Your task to perform on an android device: star an email in the gmail app Image 0: 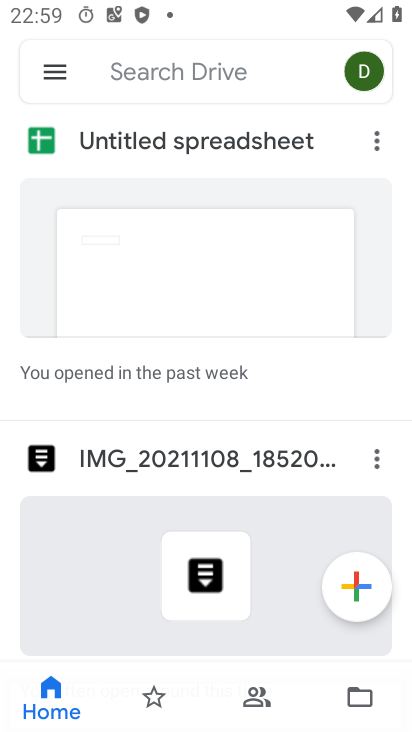
Step 0: press home button
Your task to perform on an android device: star an email in the gmail app Image 1: 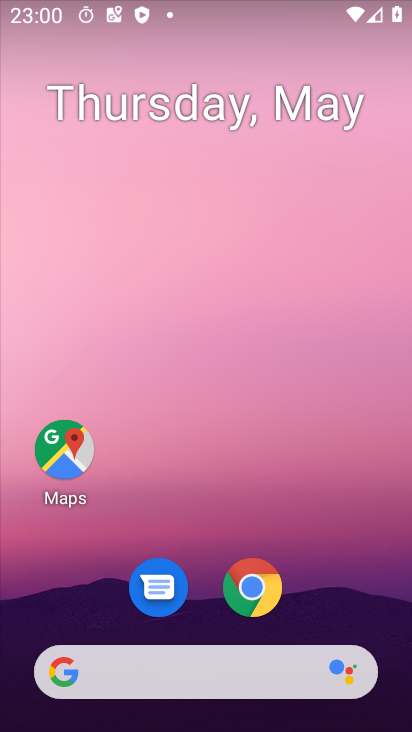
Step 1: drag from (352, 497) to (338, 12)
Your task to perform on an android device: star an email in the gmail app Image 2: 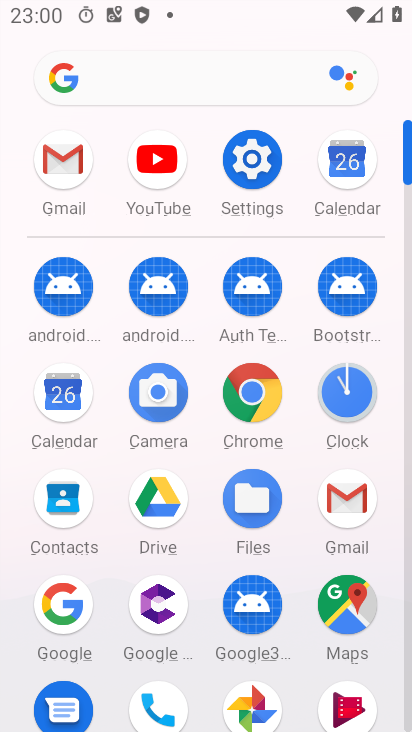
Step 2: click (51, 162)
Your task to perform on an android device: star an email in the gmail app Image 3: 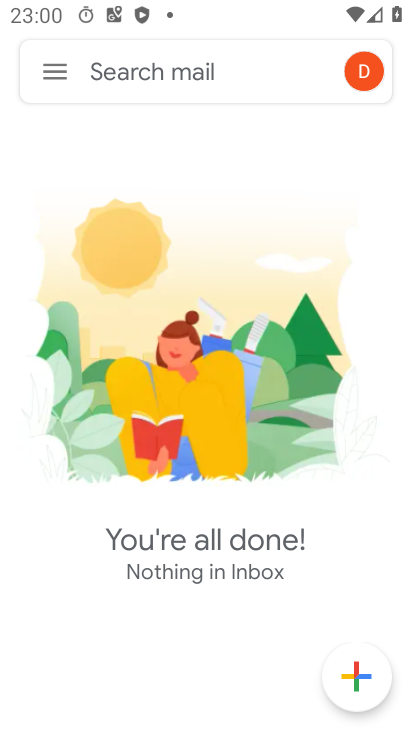
Step 3: click (53, 73)
Your task to perform on an android device: star an email in the gmail app Image 4: 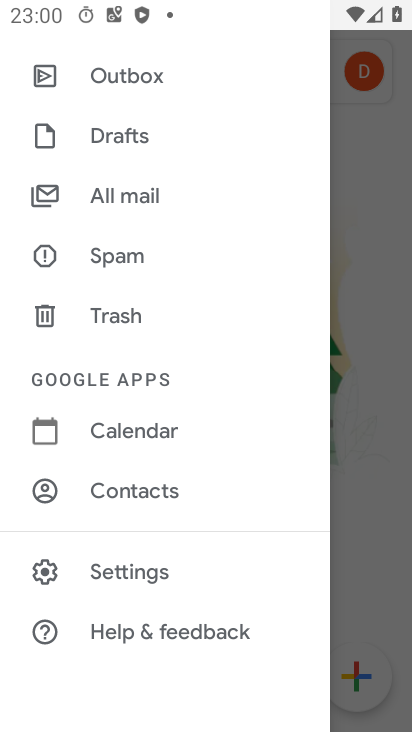
Step 4: click (163, 192)
Your task to perform on an android device: star an email in the gmail app Image 5: 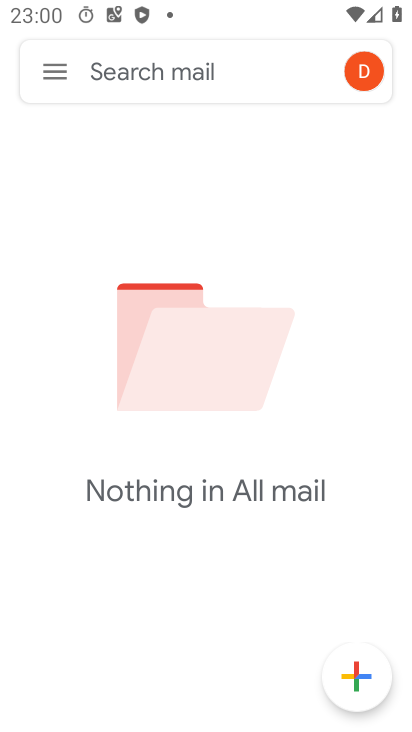
Step 5: task complete